Your task to perform on an android device: turn off smart reply in the gmail app Image 0: 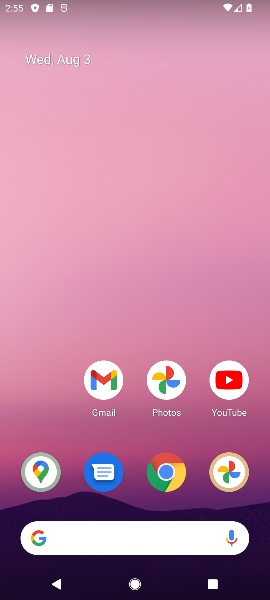
Step 0: drag from (141, 425) to (178, 4)
Your task to perform on an android device: turn off smart reply in the gmail app Image 1: 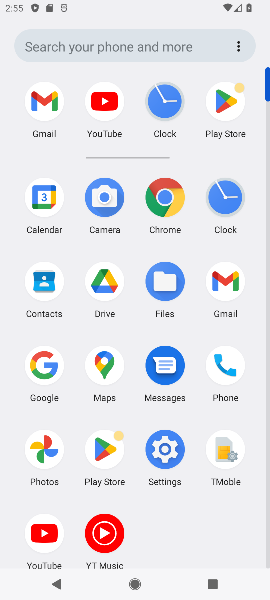
Step 1: click (228, 276)
Your task to perform on an android device: turn off smart reply in the gmail app Image 2: 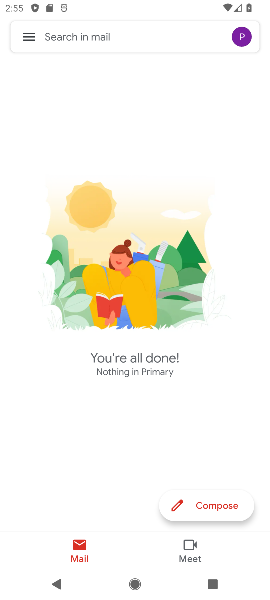
Step 2: click (29, 42)
Your task to perform on an android device: turn off smart reply in the gmail app Image 3: 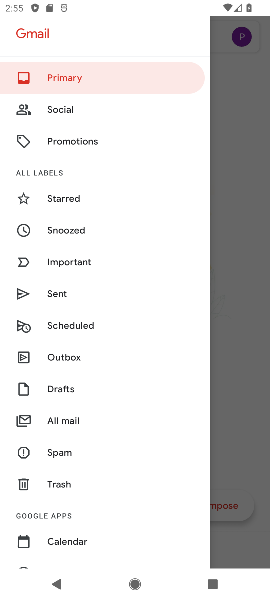
Step 3: drag from (35, 505) to (130, 53)
Your task to perform on an android device: turn off smart reply in the gmail app Image 4: 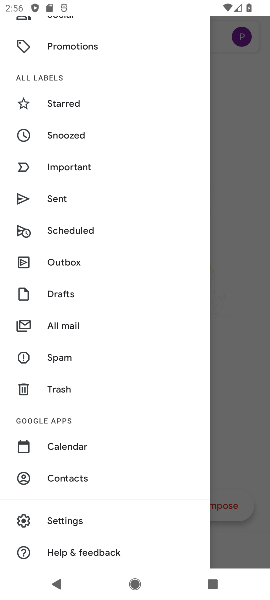
Step 4: click (61, 524)
Your task to perform on an android device: turn off smart reply in the gmail app Image 5: 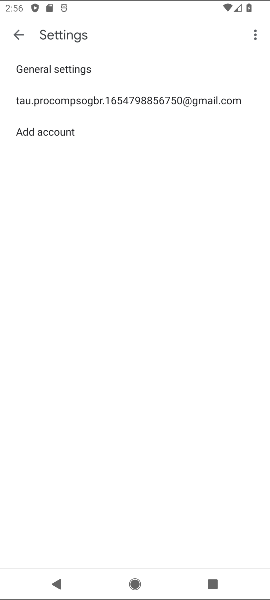
Step 5: drag from (61, 524) to (162, 148)
Your task to perform on an android device: turn off smart reply in the gmail app Image 6: 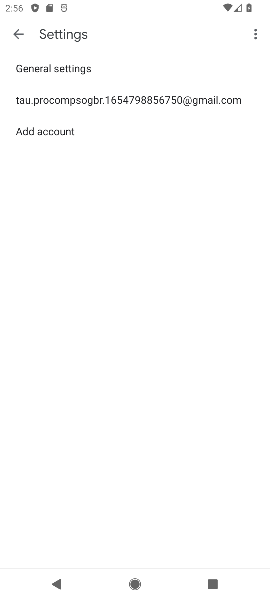
Step 6: click (149, 108)
Your task to perform on an android device: turn off smart reply in the gmail app Image 7: 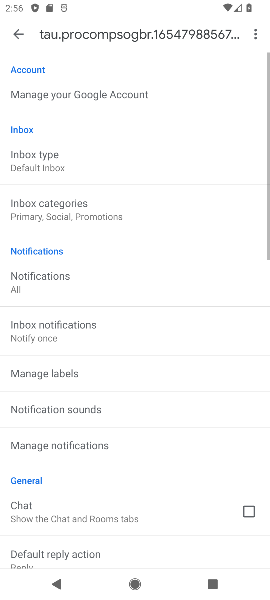
Step 7: drag from (55, 553) to (147, 98)
Your task to perform on an android device: turn off smart reply in the gmail app Image 8: 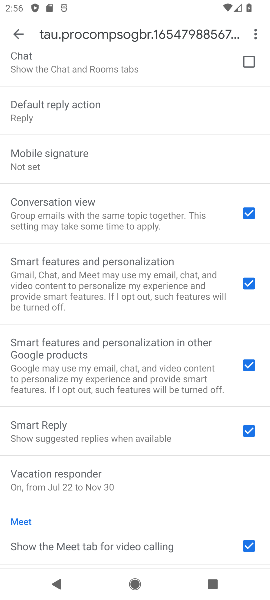
Step 8: click (123, 426)
Your task to perform on an android device: turn off smart reply in the gmail app Image 9: 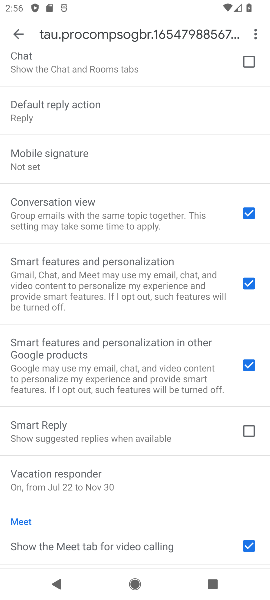
Step 9: task complete